Your task to perform on an android device: check out phone information Image 0: 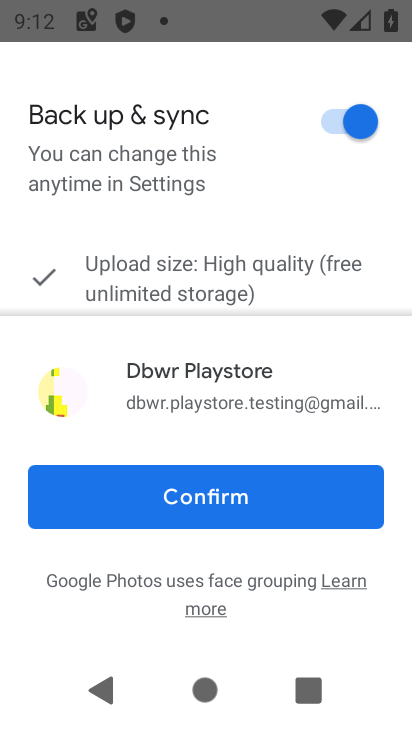
Step 0: press home button
Your task to perform on an android device: check out phone information Image 1: 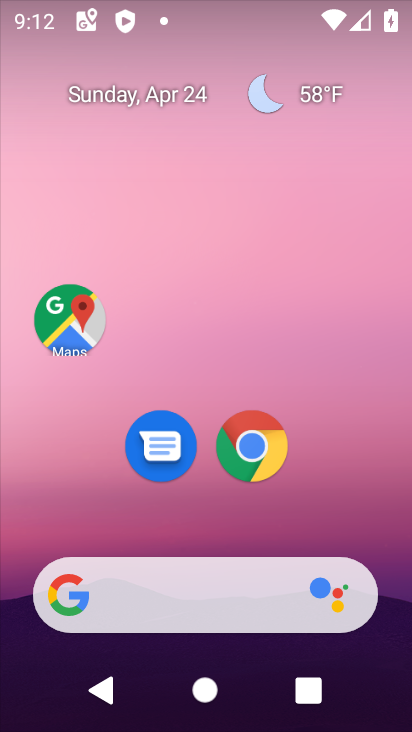
Step 1: drag from (166, 589) to (410, 46)
Your task to perform on an android device: check out phone information Image 2: 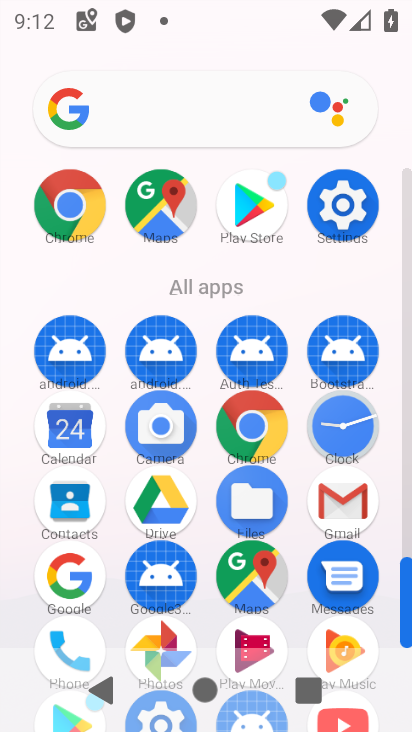
Step 2: click (340, 206)
Your task to perform on an android device: check out phone information Image 3: 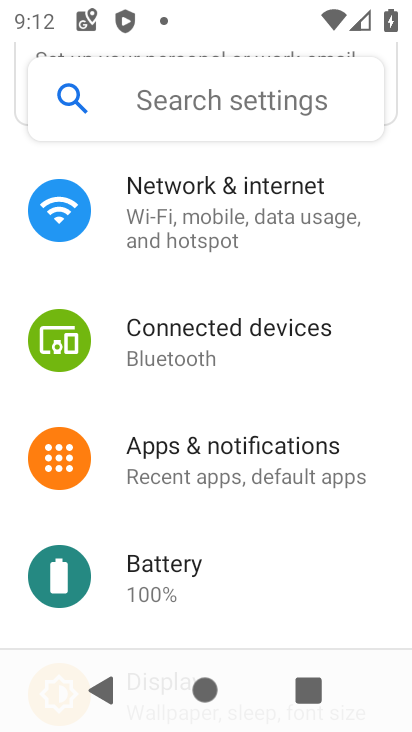
Step 3: drag from (229, 531) to (404, 36)
Your task to perform on an android device: check out phone information Image 4: 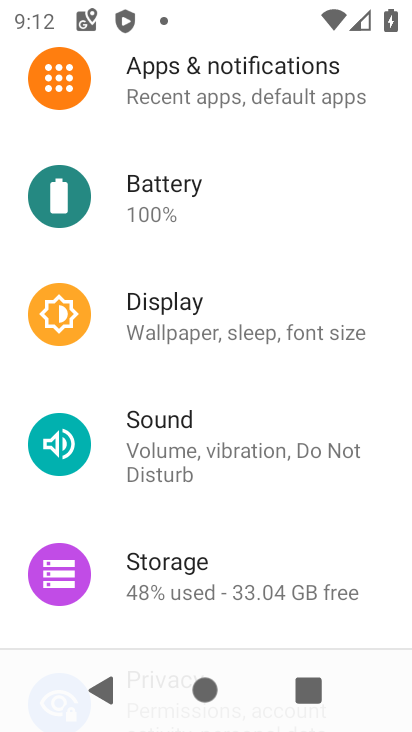
Step 4: drag from (178, 583) to (357, 6)
Your task to perform on an android device: check out phone information Image 5: 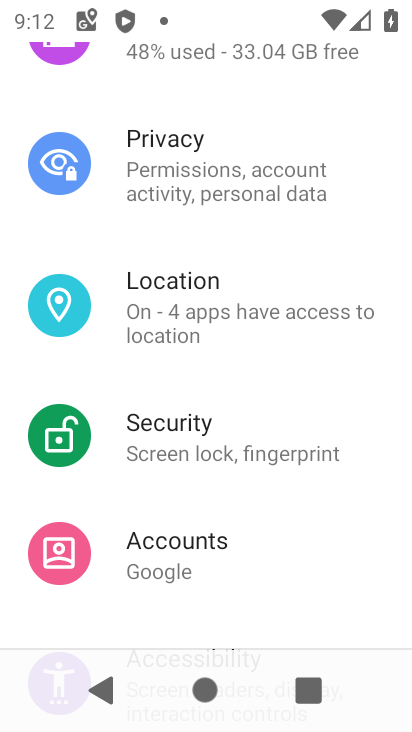
Step 5: drag from (227, 621) to (393, 1)
Your task to perform on an android device: check out phone information Image 6: 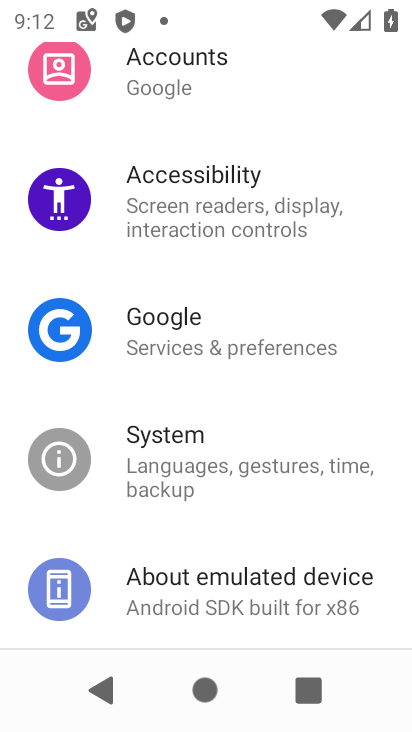
Step 6: drag from (267, 531) to (411, 65)
Your task to perform on an android device: check out phone information Image 7: 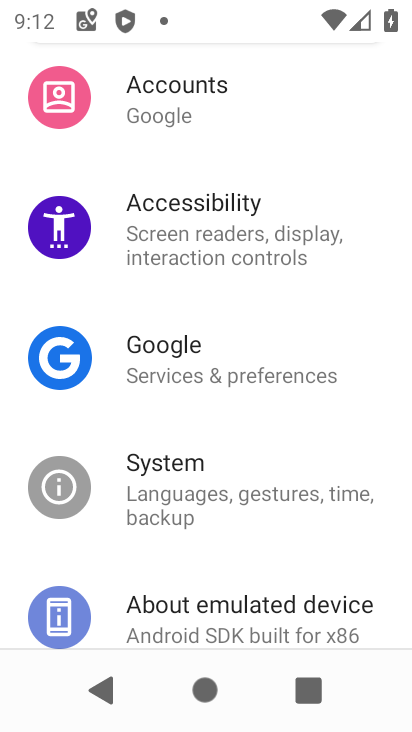
Step 7: click (213, 576)
Your task to perform on an android device: check out phone information Image 8: 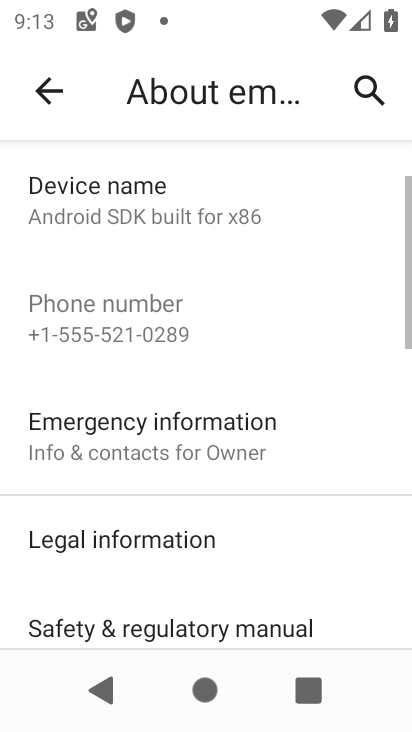
Step 8: task complete